Your task to perform on an android device: add a label to a message in the gmail app Image 0: 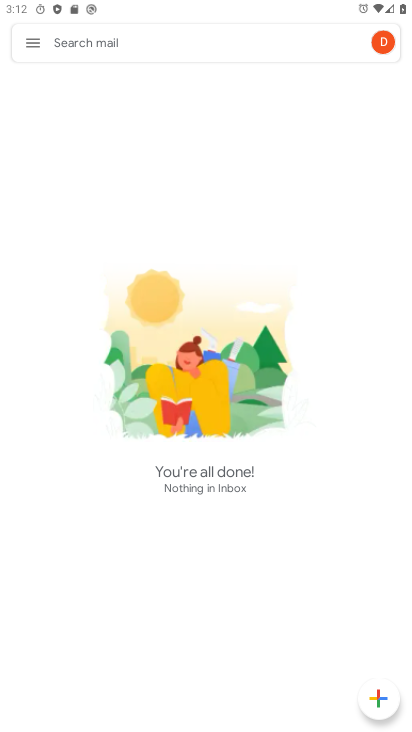
Step 0: click (30, 39)
Your task to perform on an android device: add a label to a message in the gmail app Image 1: 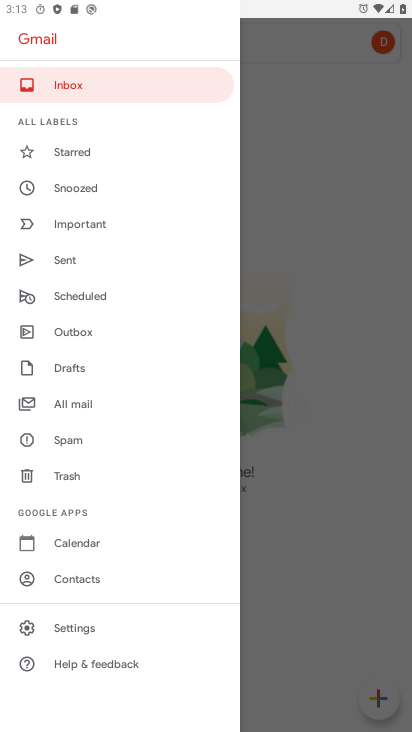
Step 1: click (64, 76)
Your task to perform on an android device: add a label to a message in the gmail app Image 2: 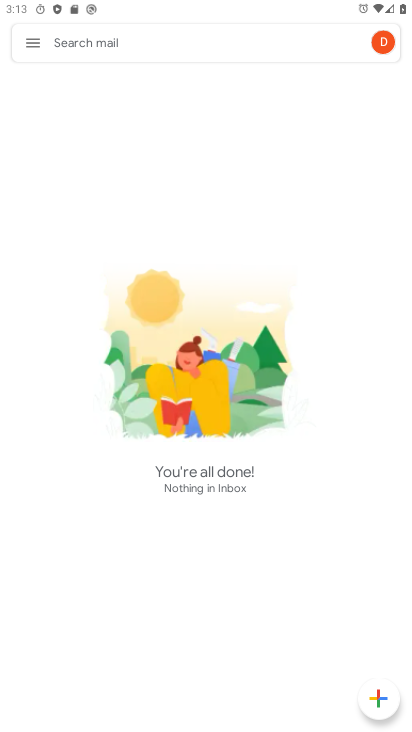
Step 2: task complete